Your task to perform on an android device: make emails show in primary in the gmail app Image 0: 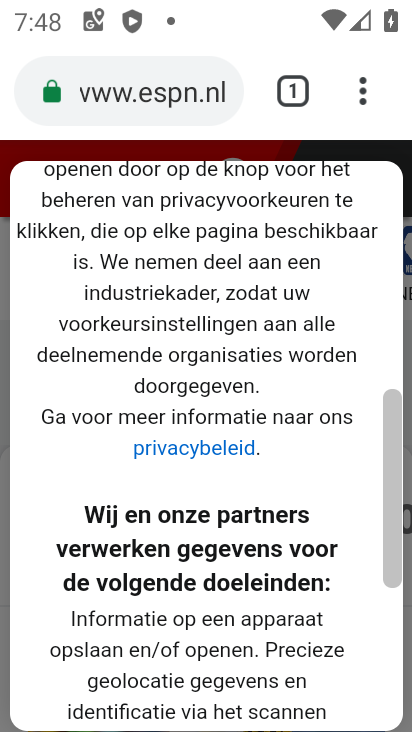
Step 0: press home button
Your task to perform on an android device: make emails show in primary in the gmail app Image 1: 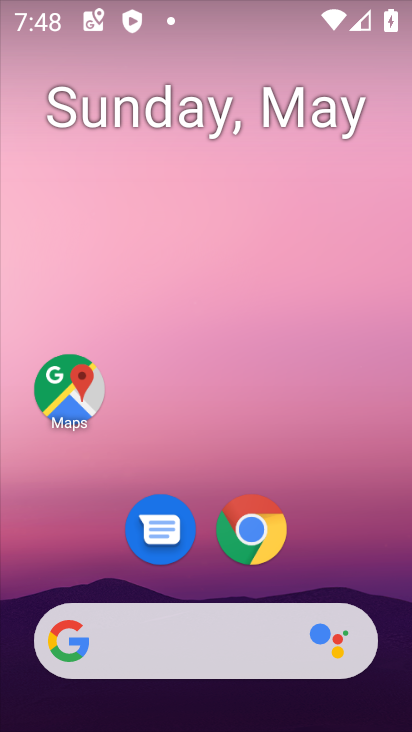
Step 1: drag from (393, 592) to (329, 7)
Your task to perform on an android device: make emails show in primary in the gmail app Image 2: 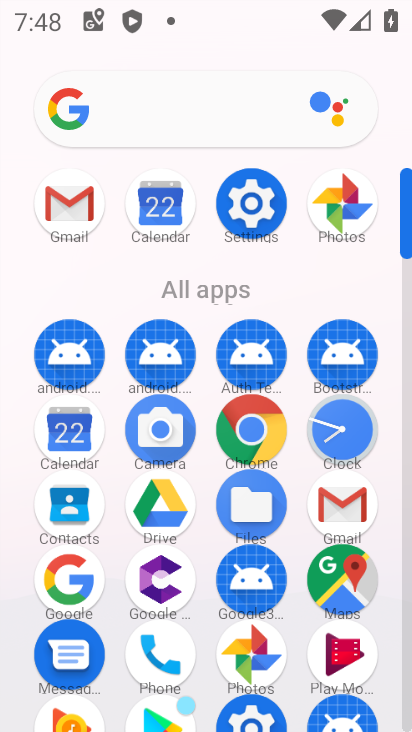
Step 2: click (47, 209)
Your task to perform on an android device: make emails show in primary in the gmail app Image 3: 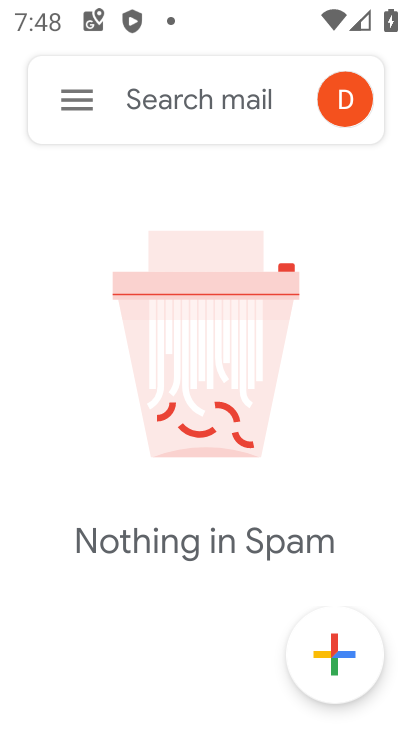
Step 3: click (81, 92)
Your task to perform on an android device: make emails show in primary in the gmail app Image 4: 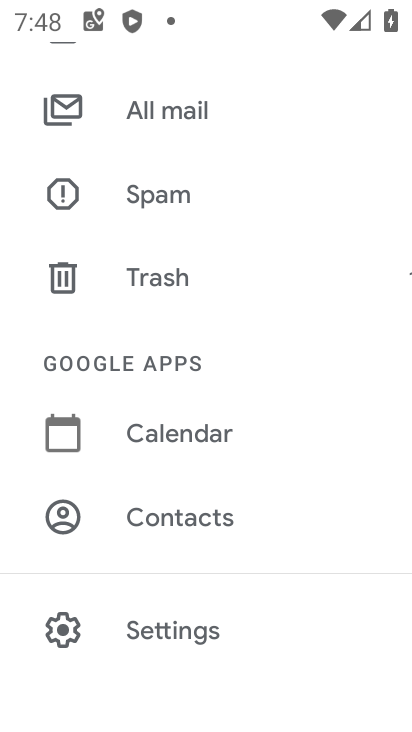
Step 4: click (183, 639)
Your task to perform on an android device: make emails show in primary in the gmail app Image 5: 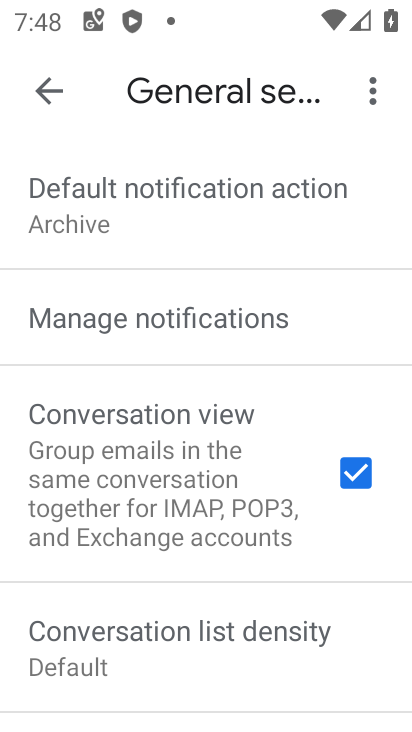
Step 5: click (49, 108)
Your task to perform on an android device: make emails show in primary in the gmail app Image 6: 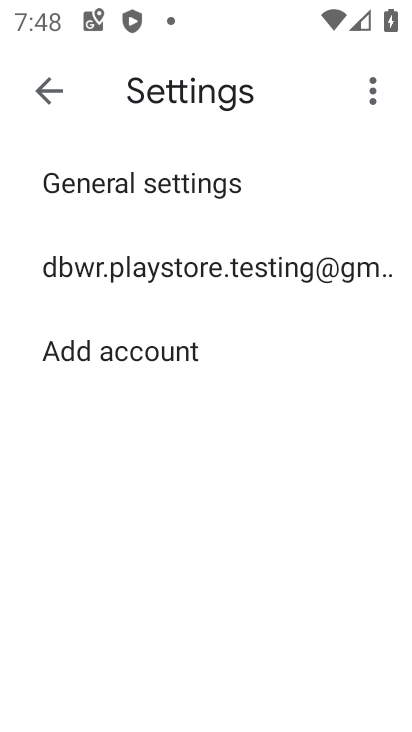
Step 6: click (149, 280)
Your task to perform on an android device: make emails show in primary in the gmail app Image 7: 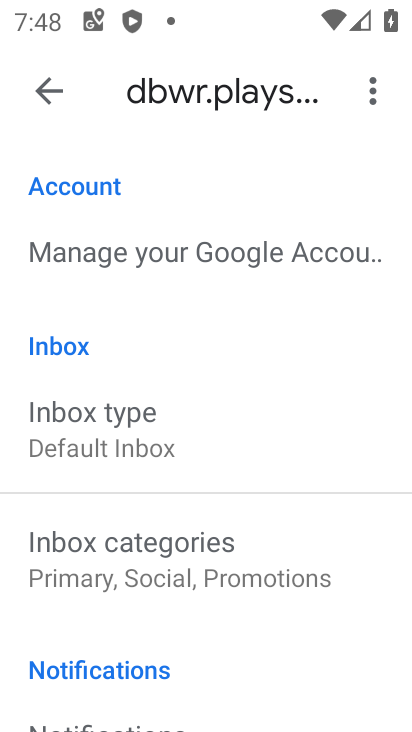
Step 7: click (133, 568)
Your task to perform on an android device: make emails show in primary in the gmail app Image 8: 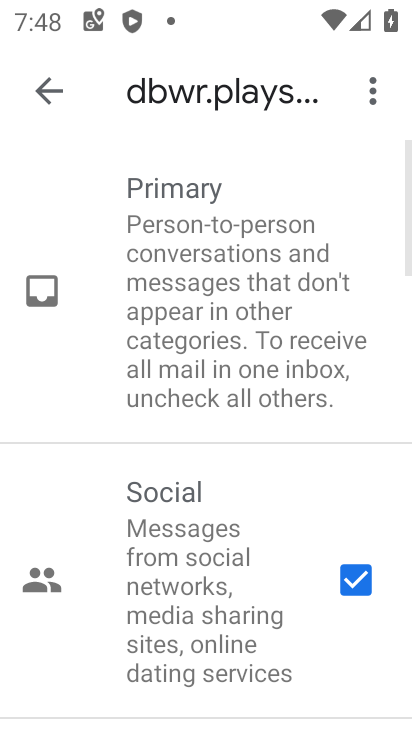
Step 8: click (352, 590)
Your task to perform on an android device: make emails show in primary in the gmail app Image 9: 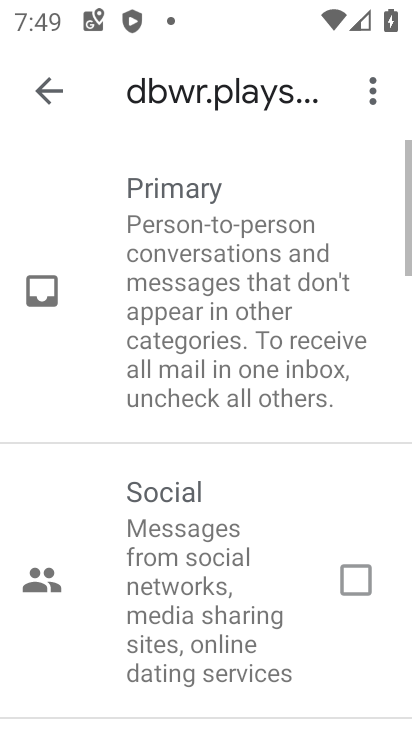
Step 9: drag from (184, 618) to (185, 111)
Your task to perform on an android device: make emails show in primary in the gmail app Image 10: 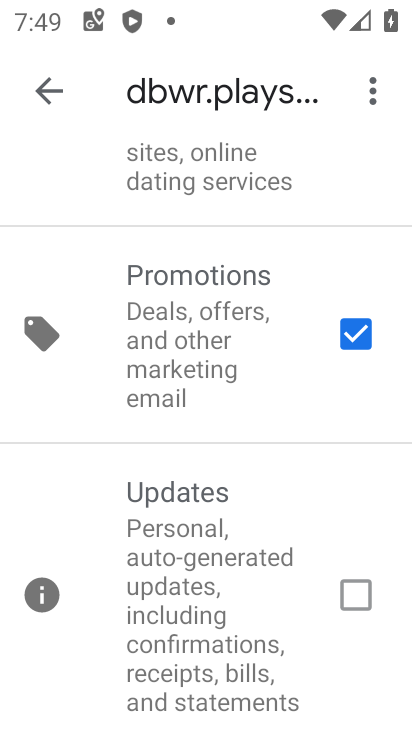
Step 10: click (355, 339)
Your task to perform on an android device: make emails show in primary in the gmail app Image 11: 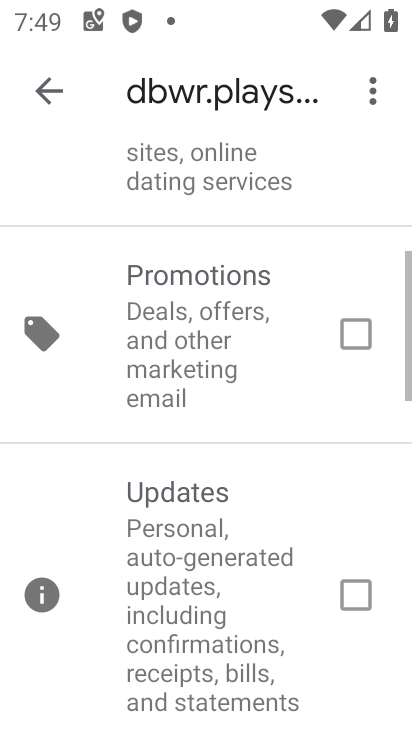
Step 11: drag from (206, 547) to (214, 194)
Your task to perform on an android device: make emails show in primary in the gmail app Image 12: 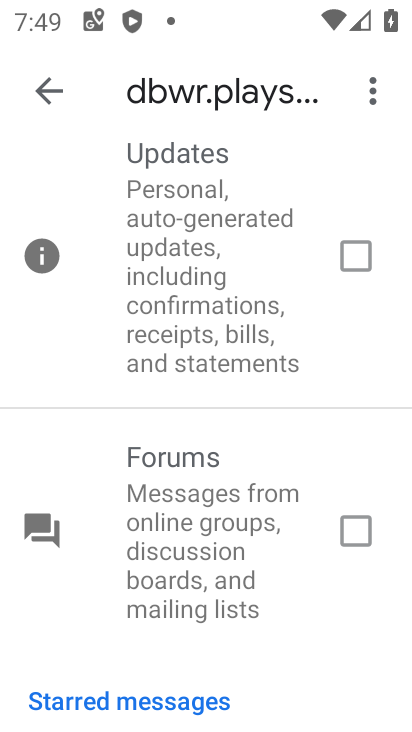
Step 12: click (51, 93)
Your task to perform on an android device: make emails show in primary in the gmail app Image 13: 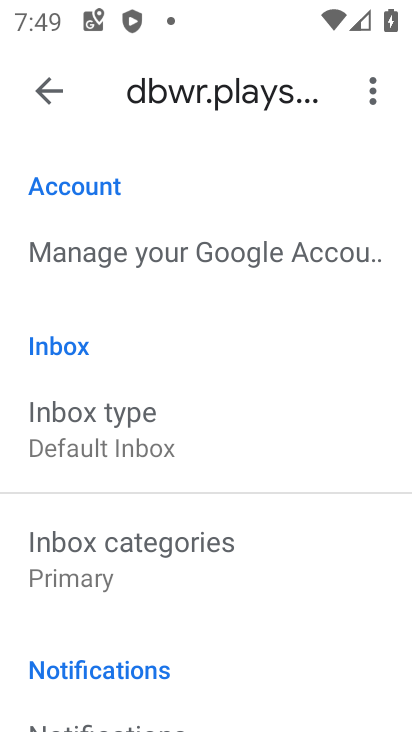
Step 13: task complete